Your task to perform on an android device: change your default location settings in chrome Image 0: 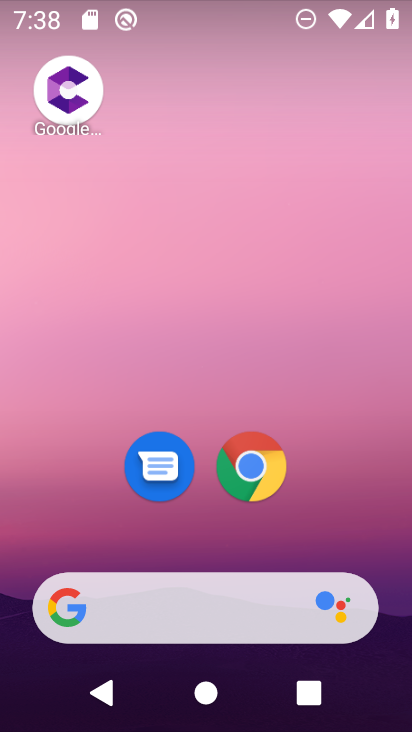
Step 0: drag from (150, 729) to (131, 87)
Your task to perform on an android device: change your default location settings in chrome Image 1: 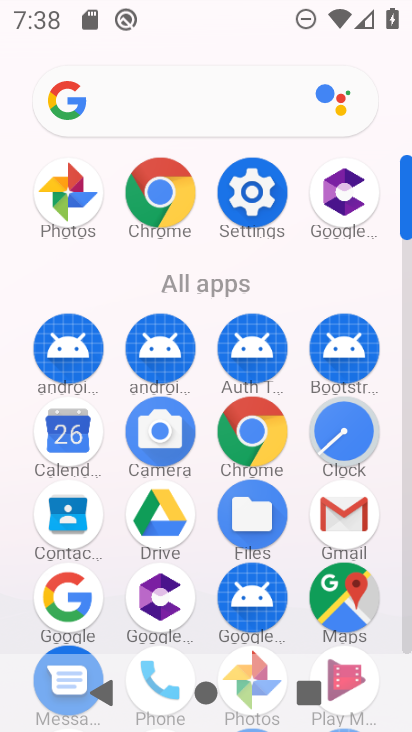
Step 1: drag from (213, 542) to (260, 219)
Your task to perform on an android device: change your default location settings in chrome Image 2: 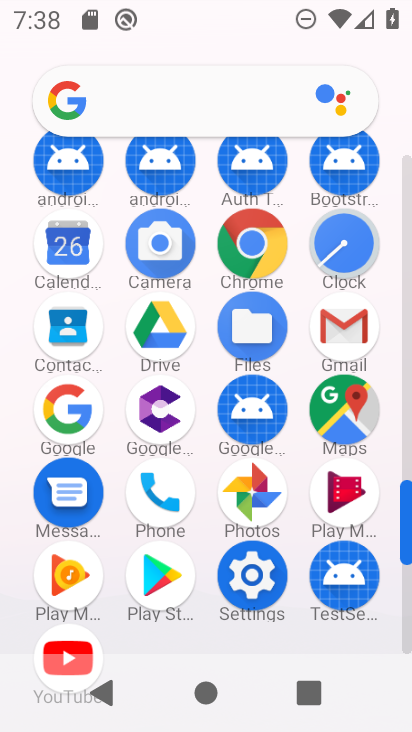
Step 2: drag from (212, 584) to (214, 484)
Your task to perform on an android device: change your default location settings in chrome Image 3: 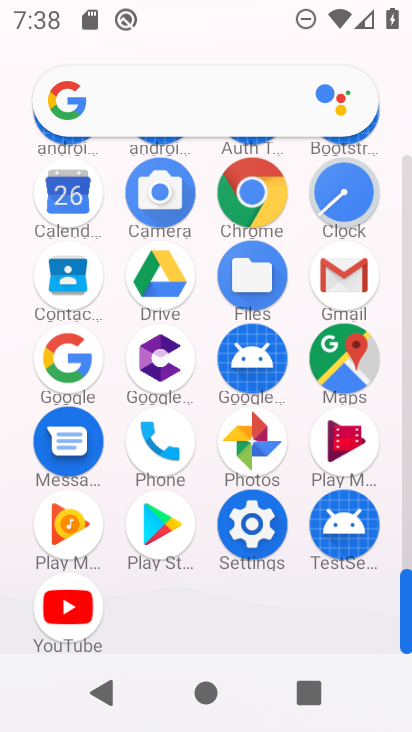
Step 3: click (59, 630)
Your task to perform on an android device: change your default location settings in chrome Image 4: 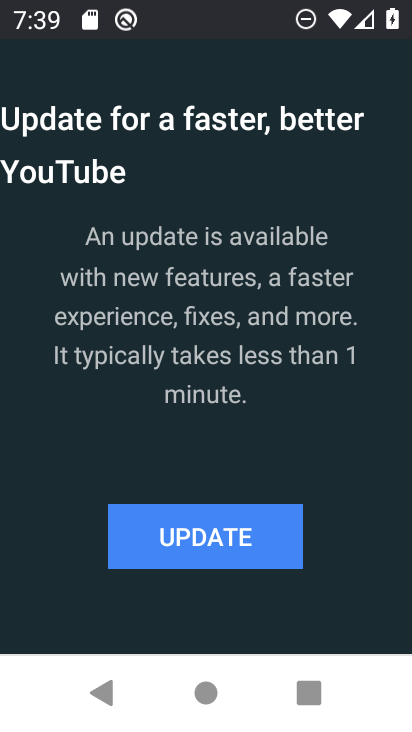
Step 4: click (221, 547)
Your task to perform on an android device: change your default location settings in chrome Image 5: 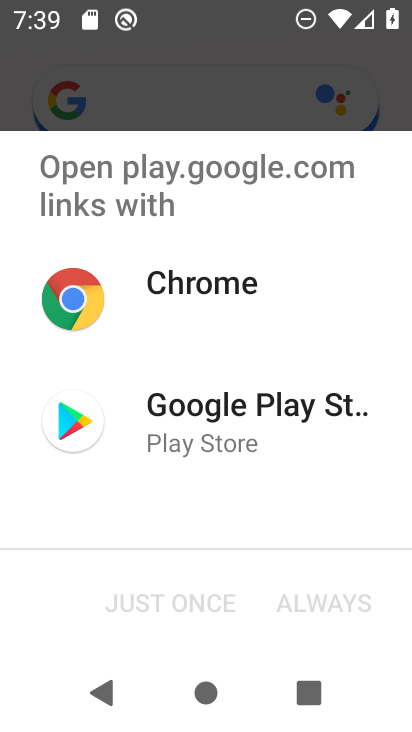
Step 5: click (236, 434)
Your task to perform on an android device: change your default location settings in chrome Image 6: 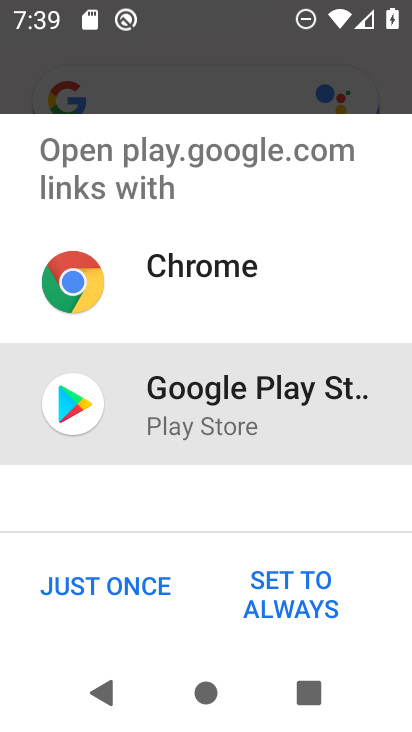
Step 6: click (141, 592)
Your task to perform on an android device: change your default location settings in chrome Image 7: 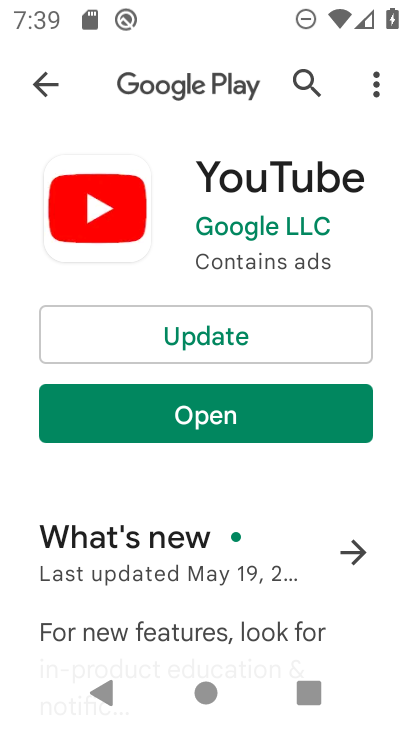
Step 7: click (285, 342)
Your task to perform on an android device: change your default location settings in chrome Image 8: 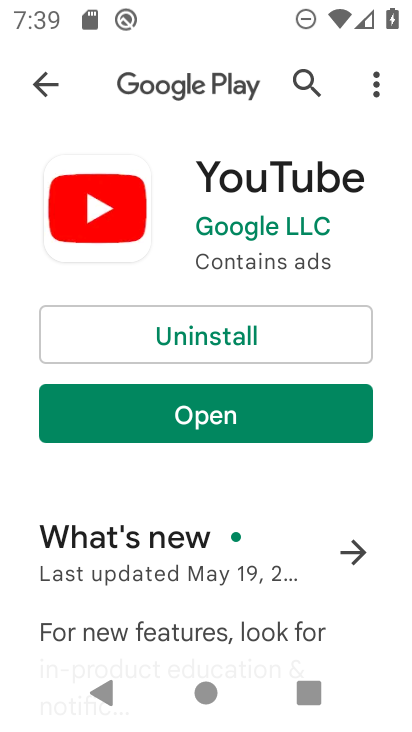
Step 8: click (229, 415)
Your task to perform on an android device: change your default location settings in chrome Image 9: 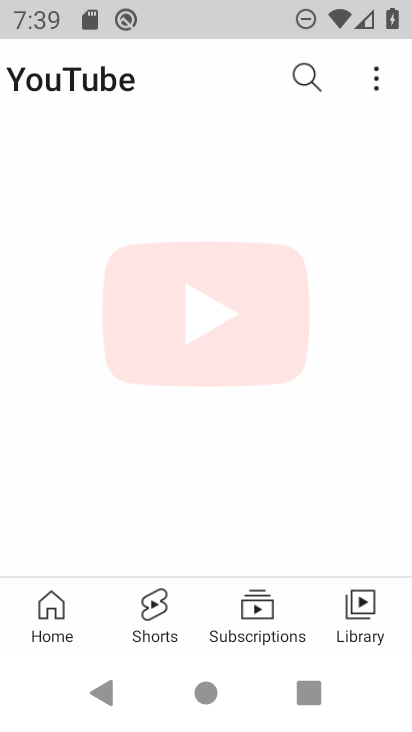
Step 9: press home button
Your task to perform on an android device: change your default location settings in chrome Image 10: 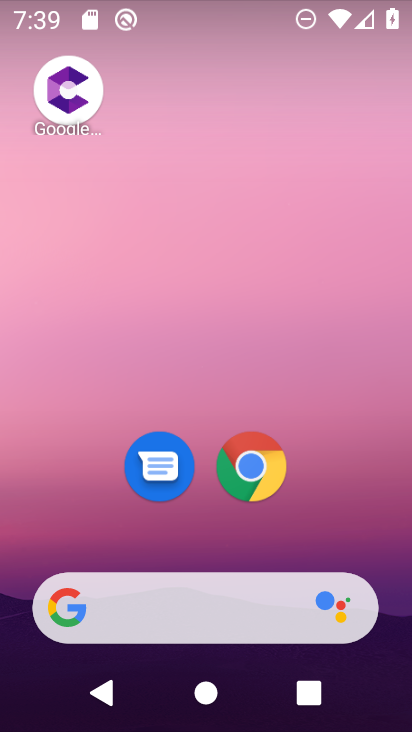
Step 10: drag from (160, 722) to (117, 145)
Your task to perform on an android device: change your default location settings in chrome Image 11: 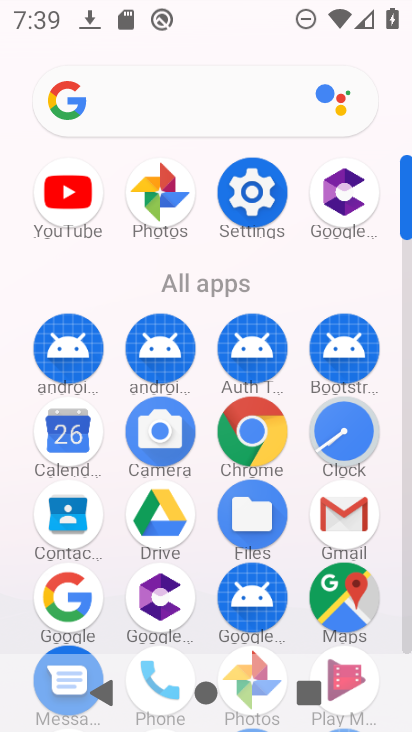
Step 11: click (260, 444)
Your task to perform on an android device: change your default location settings in chrome Image 12: 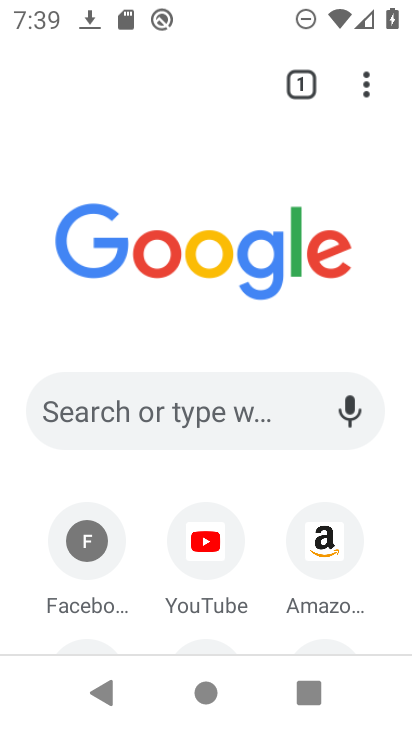
Step 12: click (368, 89)
Your task to perform on an android device: change your default location settings in chrome Image 13: 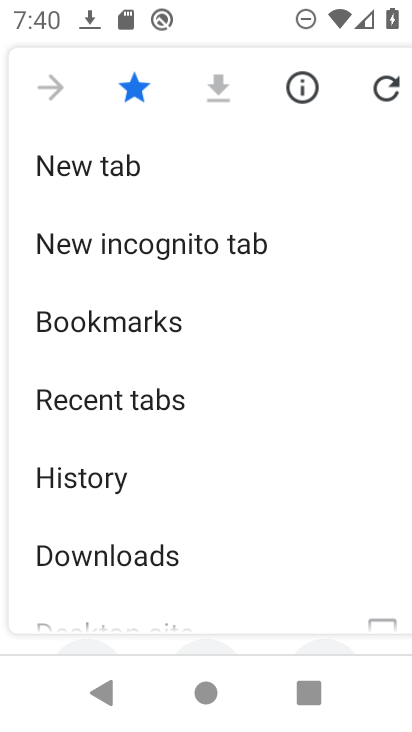
Step 13: drag from (178, 495) to (188, 233)
Your task to perform on an android device: change your default location settings in chrome Image 14: 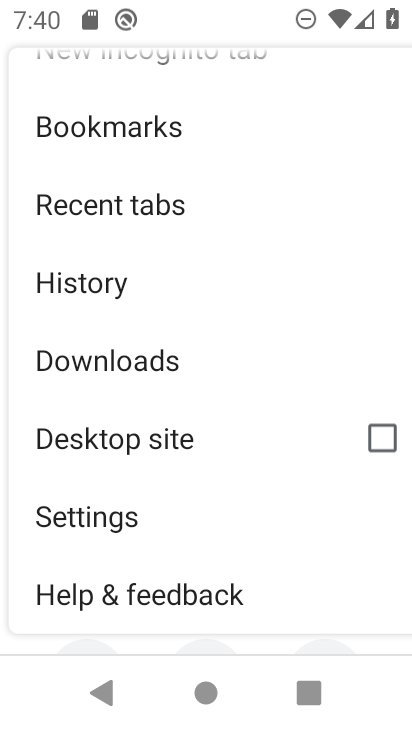
Step 14: click (140, 513)
Your task to perform on an android device: change your default location settings in chrome Image 15: 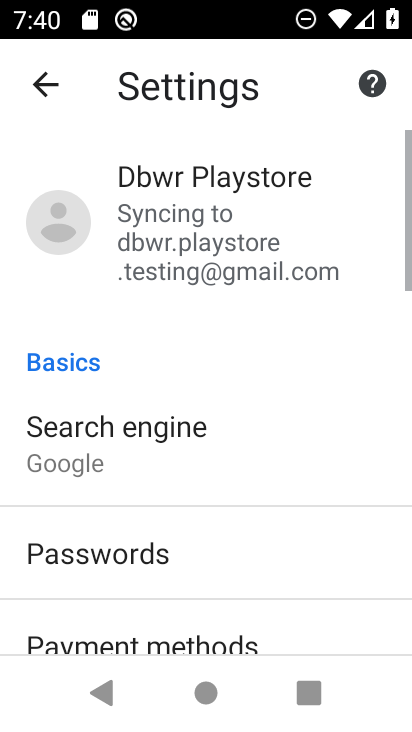
Step 15: drag from (133, 507) to (143, 186)
Your task to perform on an android device: change your default location settings in chrome Image 16: 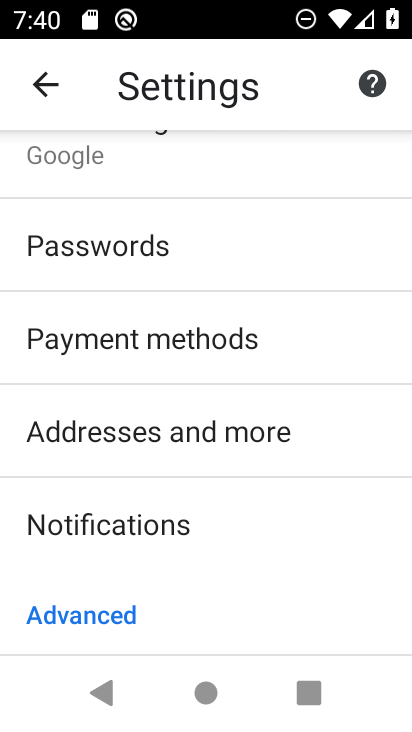
Step 16: drag from (273, 545) to (330, 265)
Your task to perform on an android device: change your default location settings in chrome Image 17: 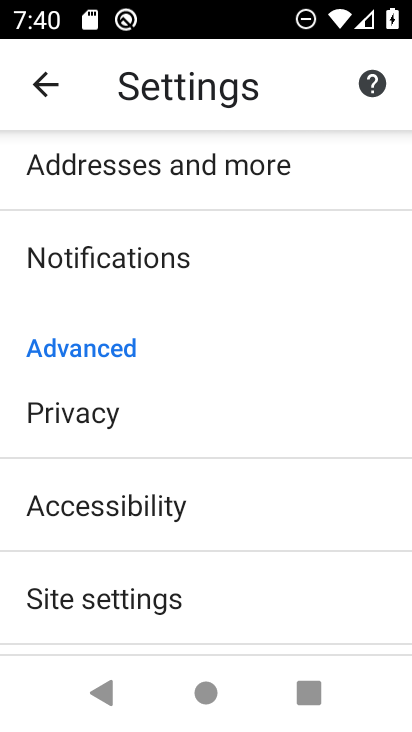
Step 17: drag from (296, 535) to (318, 403)
Your task to perform on an android device: change your default location settings in chrome Image 18: 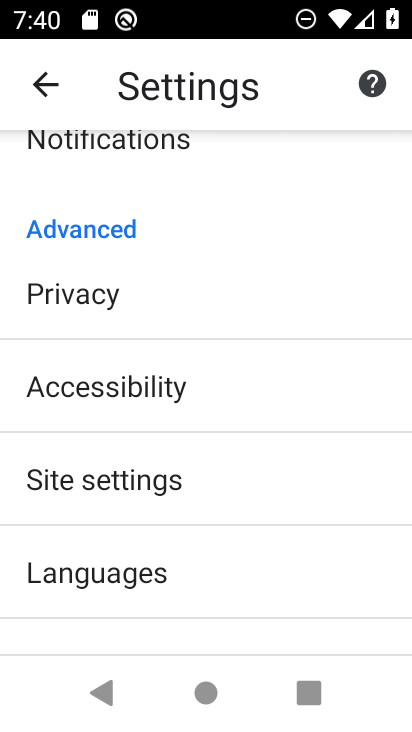
Step 18: click (177, 487)
Your task to perform on an android device: change your default location settings in chrome Image 19: 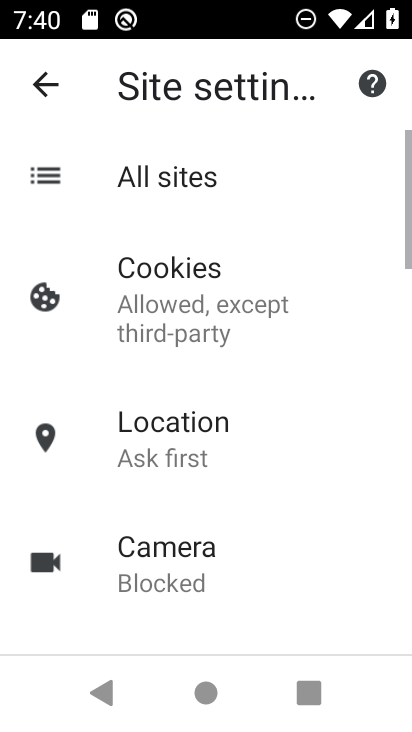
Step 19: drag from (276, 554) to (275, 345)
Your task to perform on an android device: change your default location settings in chrome Image 20: 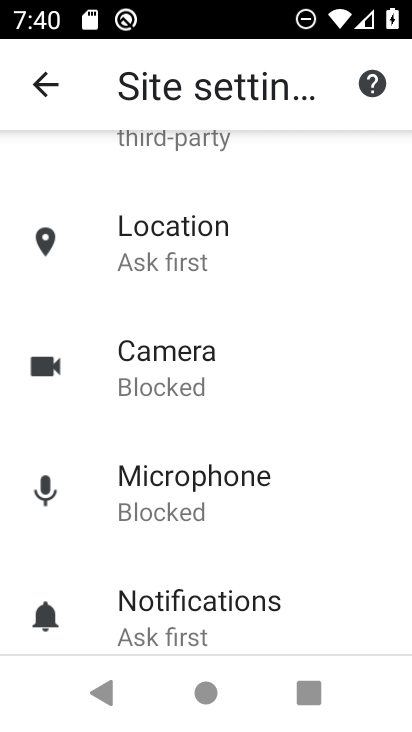
Step 20: click (167, 238)
Your task to perform on an android device: change your default location settings in chrome Image 21: 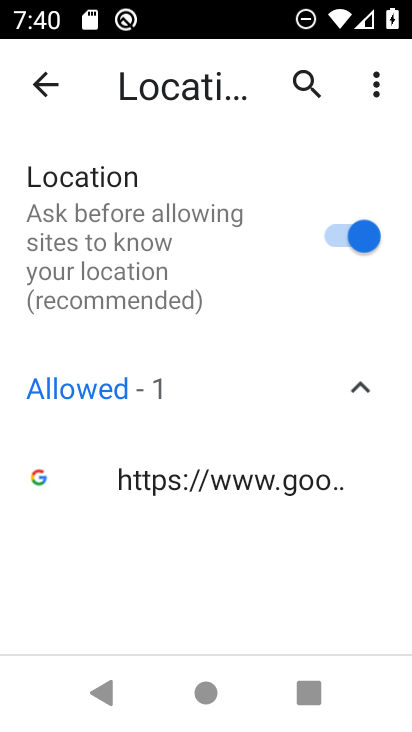
Step 21: click (359, 242)
Your task to perform on an android device: change your default location settings in chrome Image 22: 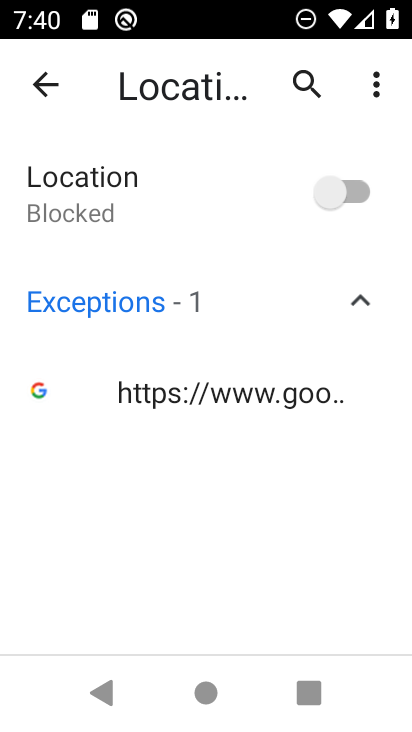
Step 22: task complete